Your task to perform on an android device: check android version Image 0: 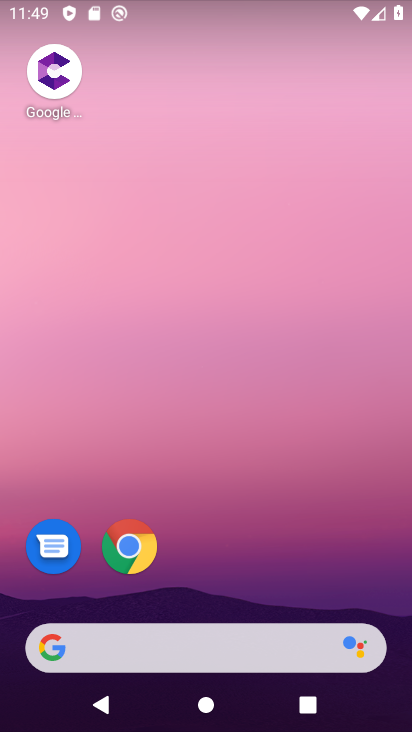
Step 0: drag from (173, 727) to (210, 9)
Your task to perform on an android device: check android version Image 1: 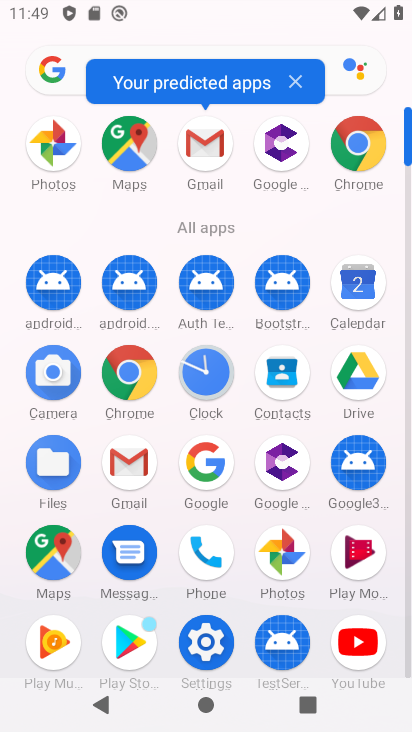
Step 1: click (216, 649)
Your task to perform on an android device: check android version Image 2: 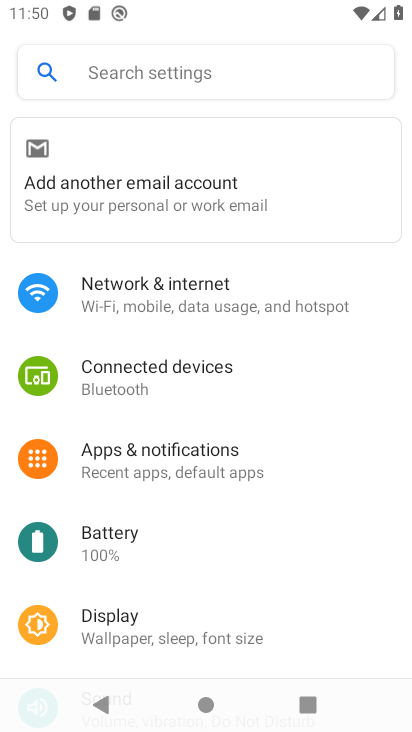
Step 2: drag from (194, 477) to (288, 50)
Your task to perform on an android device: check android version Image 3: 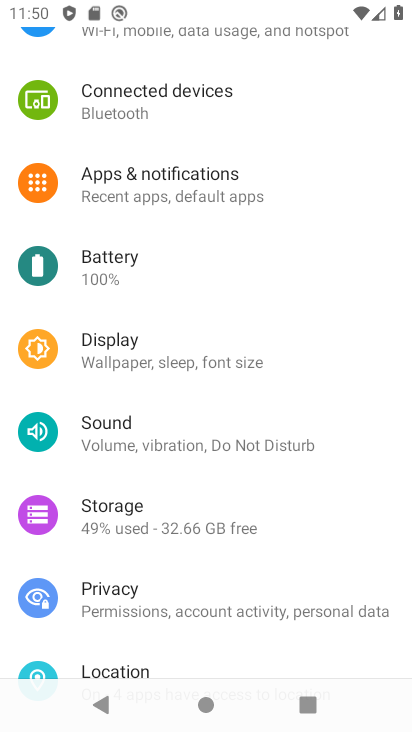
Step 3: drag from (141, 660) to (205, 16)
Your task to perform on an android device: check android version Image 4: 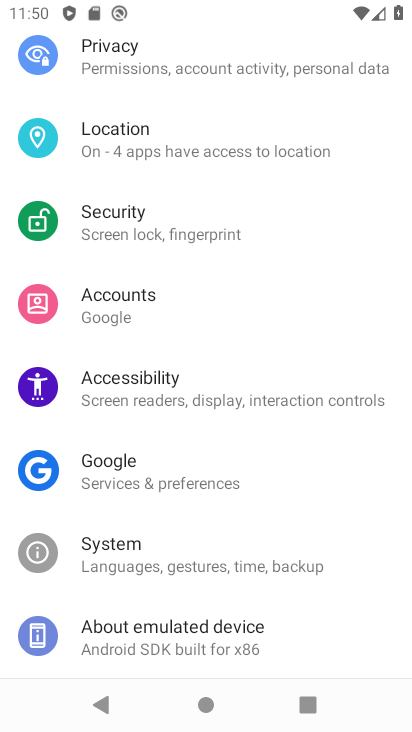
Step 4: click (99, 634)
Your task to perform on an android device: check android version Image 5: 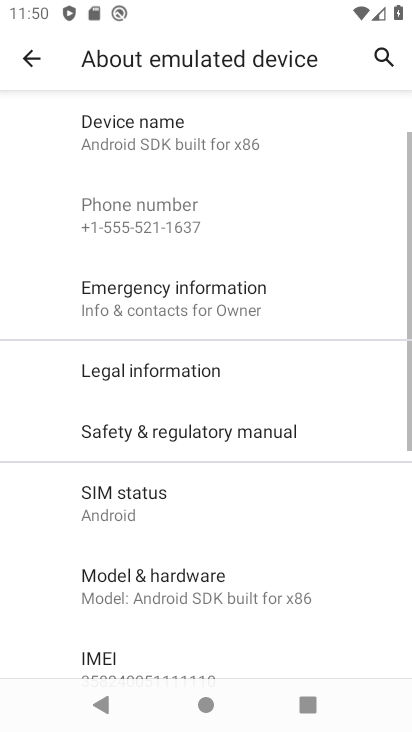
Step 5: drag from (277, 532) to (283, 263)
Your task to perform on an android device: check android version Image 6: 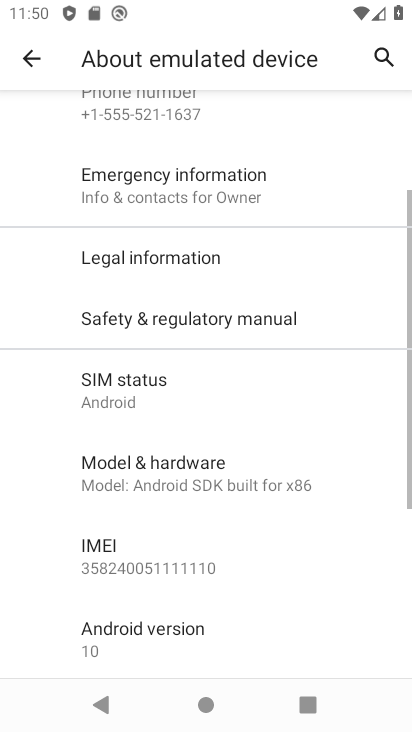
Step 6: click (92, 635)
Your task to perform on an android device: check android version Image 7: 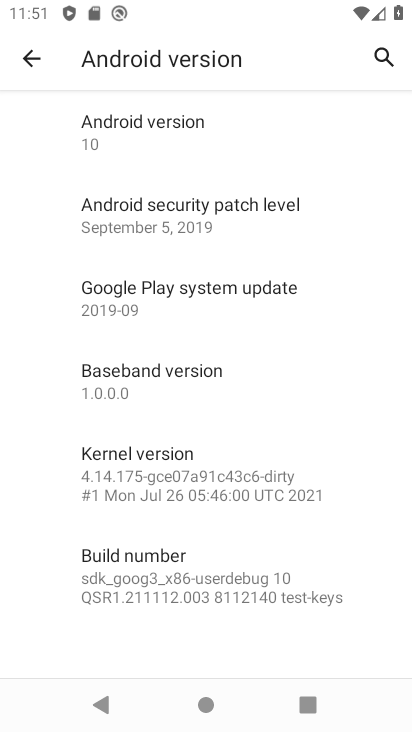
Step 7: task complete